Your task to perform on an android device: Open Google Maps and go to "Timeline" Image 0: 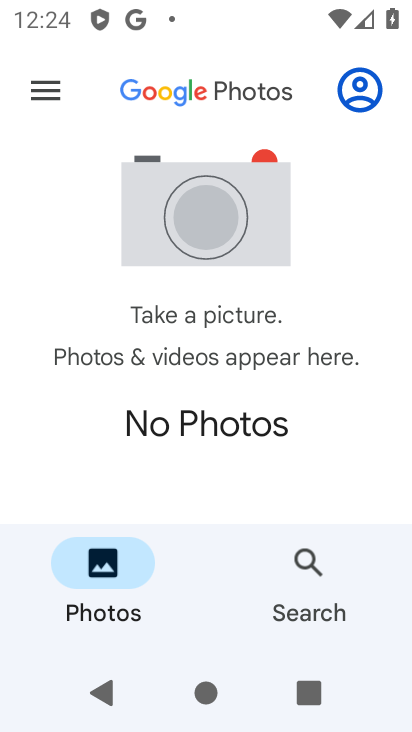
Step 0: press home button
Your task to perform on an android device: Open Google Maps and go to "Timeline" Image 1: 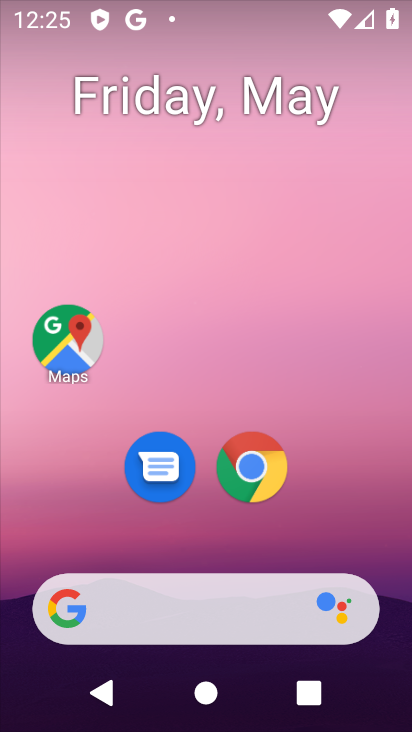
Step 1: click (70, 342)
Your task to perform on an android device: Open Google Maps and go to "Timeline" Image 2: 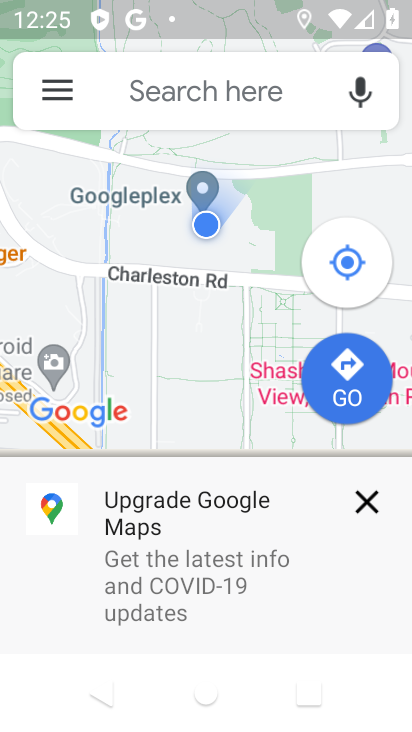
Step 2: click (366, 500)
Your task to perform on an android device: Open Google Maps and go to "Timeline" Image 3: 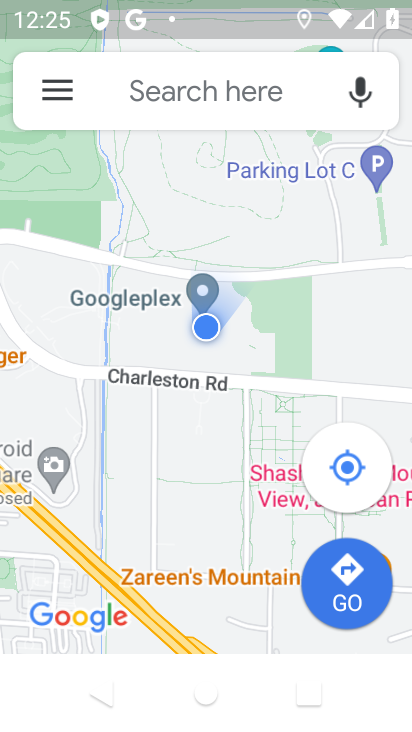
Step 3: click (61, 86)
Your task to perform on an android device: Open Google Maps and go to "Timeline" Image 4: 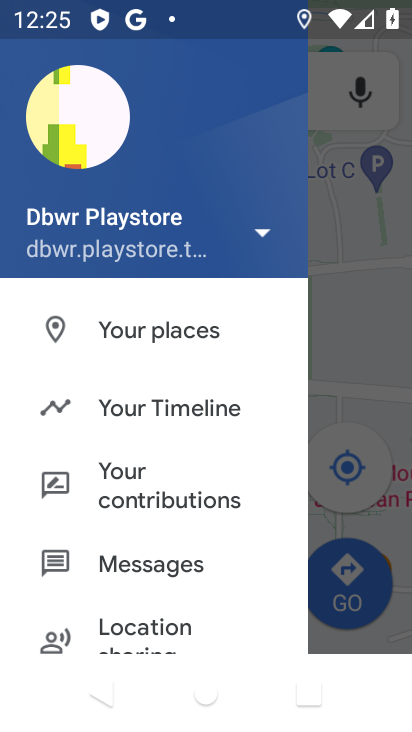
Step 4: click (198, 412)
Your task to perform on an android device: Open Google Maps and go to "Timeline" Image 5: 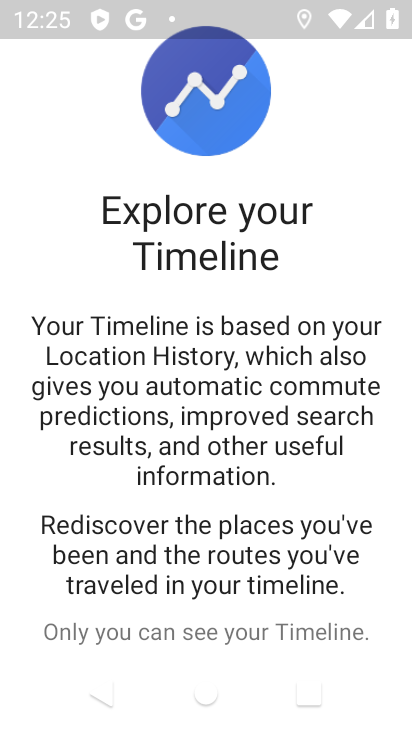
Step 5: drag from (219, 535) to (311, 271)
Your task to perform on an android device: Open Google Maps and go to "Timeline" Image 6: 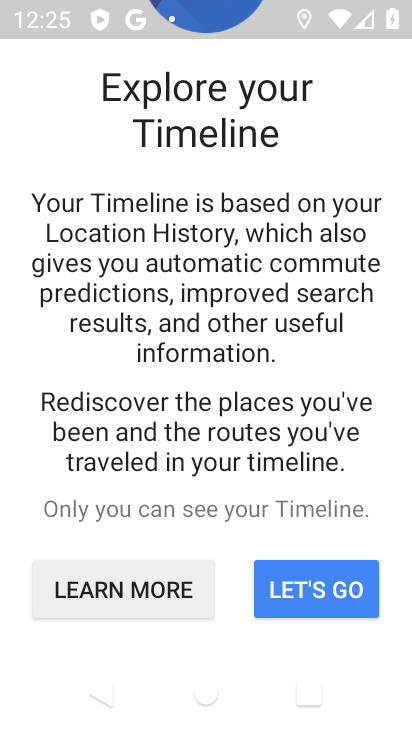
Step 6: click (305, 586)
Your task to perform on an android device: Open Google Maps and go to "Timeline" Image 7: 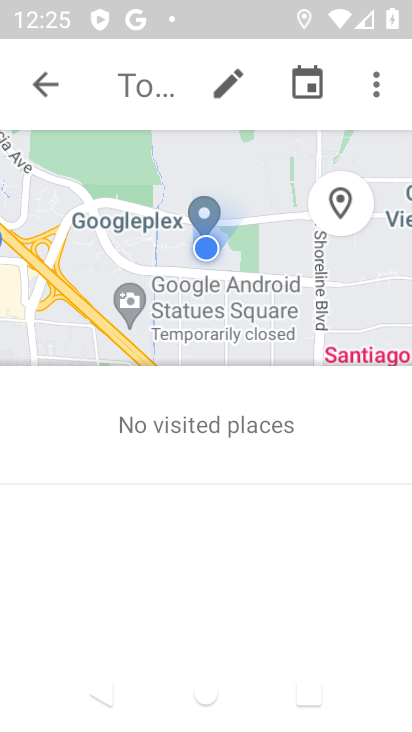
Step 7: task complete